Your task to perform on an android device: change the clock display to analog Image 0: 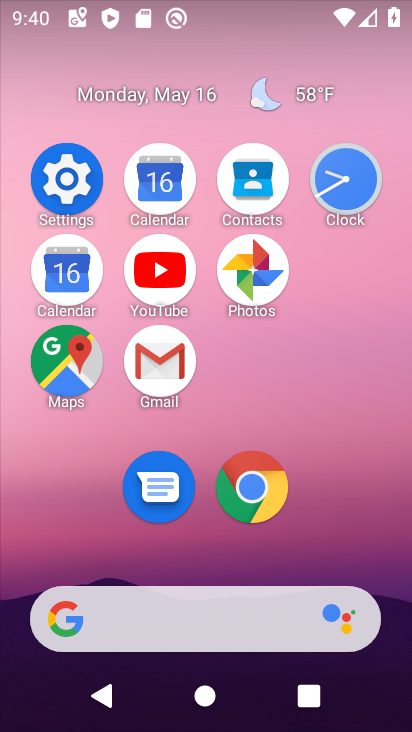
Step 0: click (355, 201)
Your task to perform on an android device: change the clock display to analog Image 1: 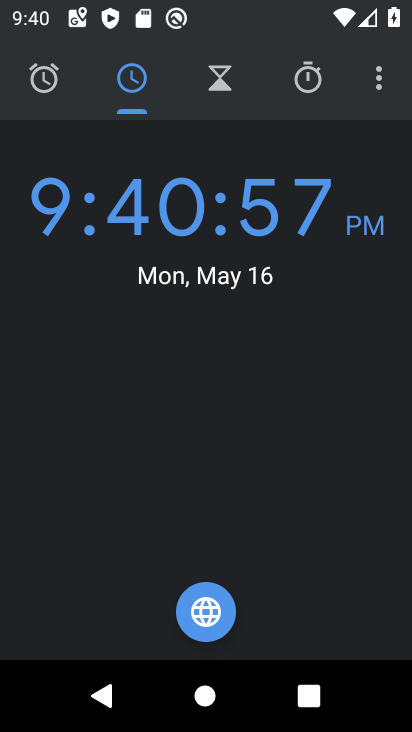
Step 1: click (373, 75)
Your task to perform on an android device: change the clock display to analog Image 2: 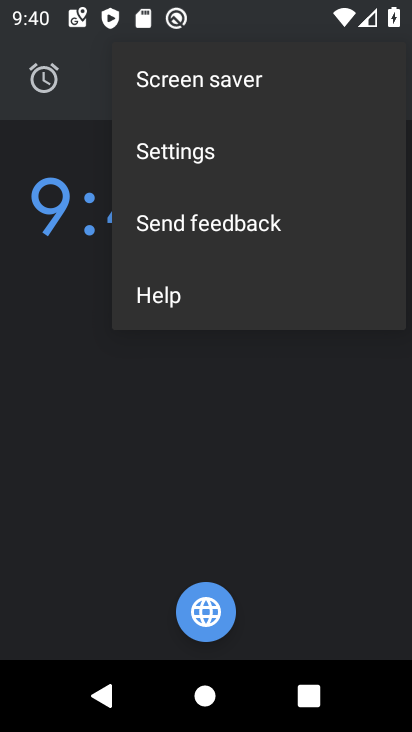
Step 2: click (182, 132)
Your task to perform on an android device: change the clock display to analog Image 3: 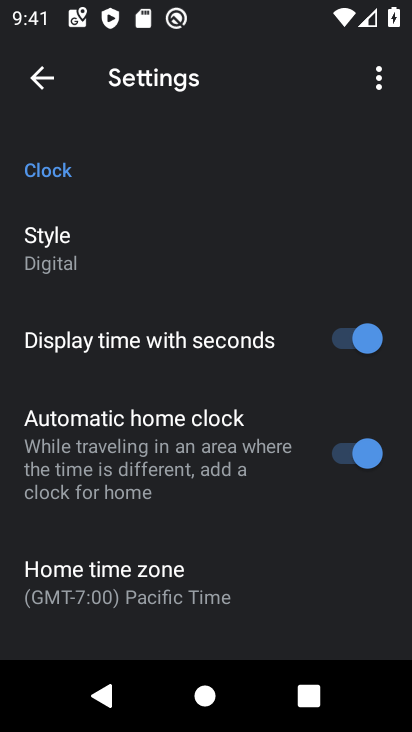
Step 3: click (115, 236)
Your task to perform on an android device: change the clock display to analog Image 4: 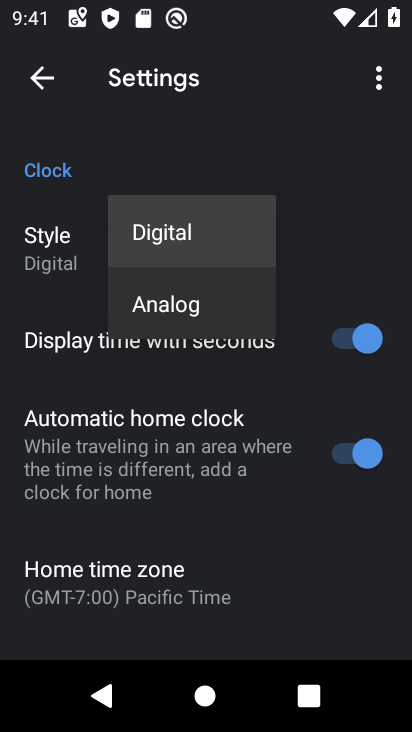
Step 4: click (160, 289)
Your task to perform on an android device: change the clock display to analog Image 5: 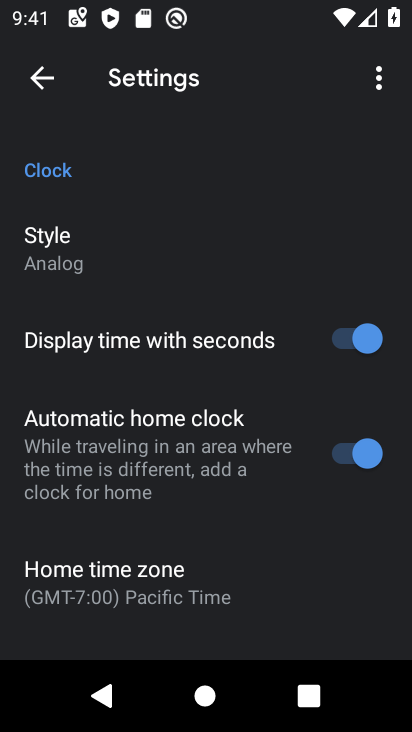
Step 5: task complete